Your task to perform on an android device: see sites visited before in the chrome app Image 0: 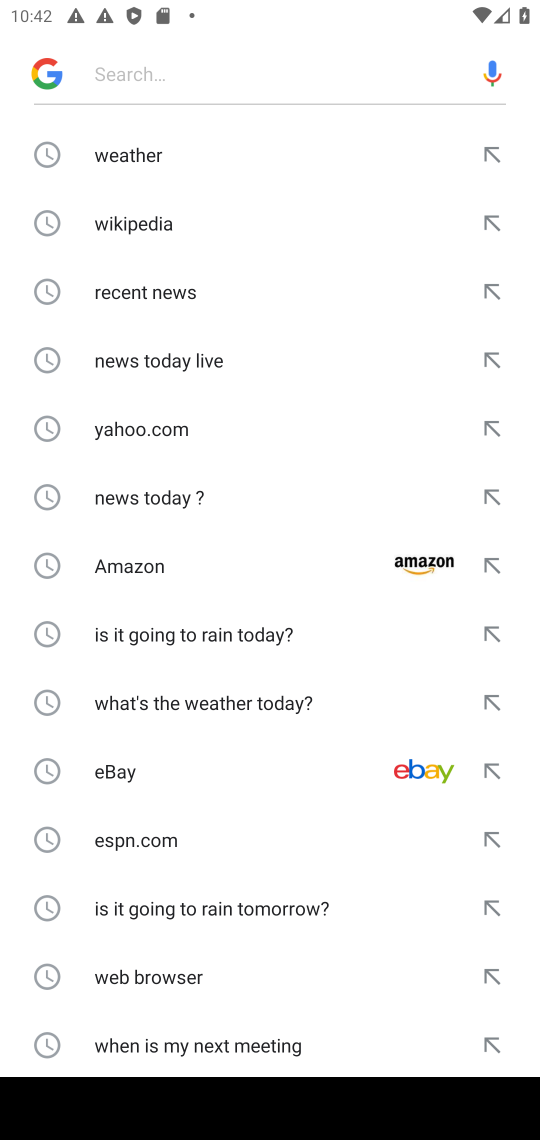
Step 0: press home button
Your task to perform on an android device: see sites visited before in the chrome app Image 1: 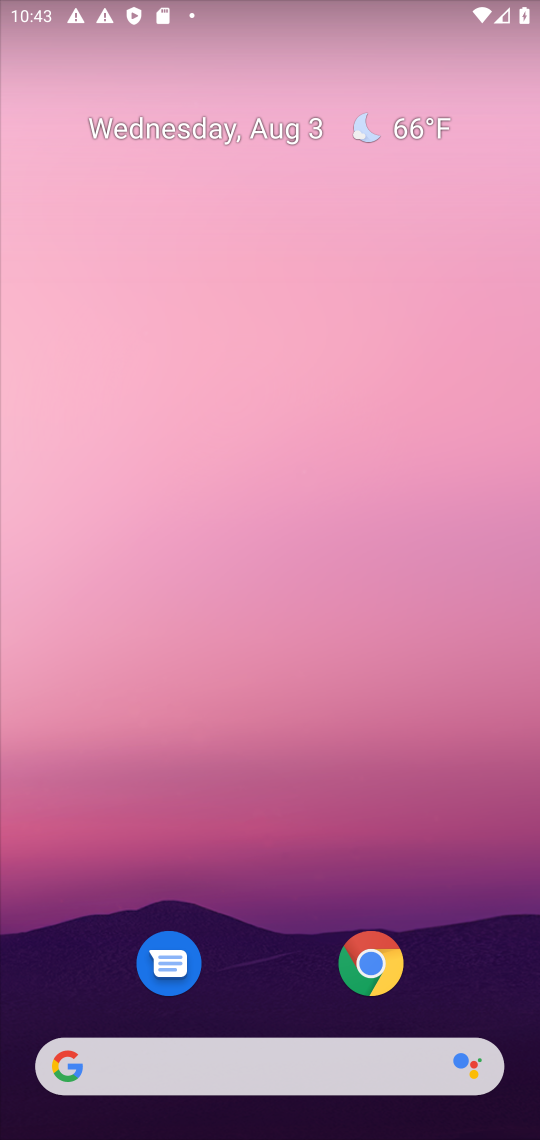
Step 1: click (368, 974)
Your task to perform on an android device: see sites visited before in the chrome app Image 2: 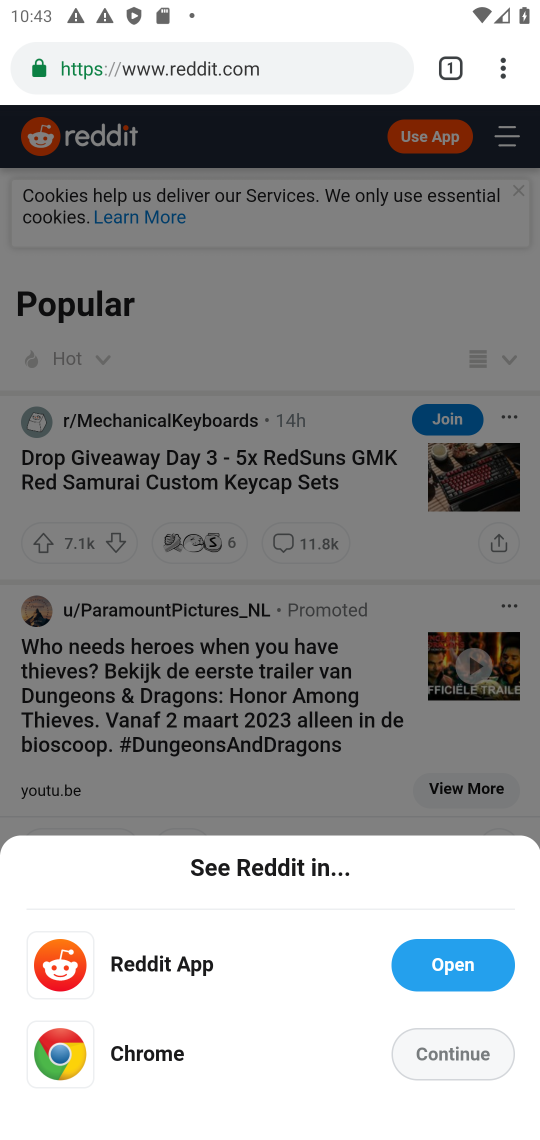
Step 2: click (424, 1040)
Your task to perform on an android device: see sites visited before in the chrome app Image 3: 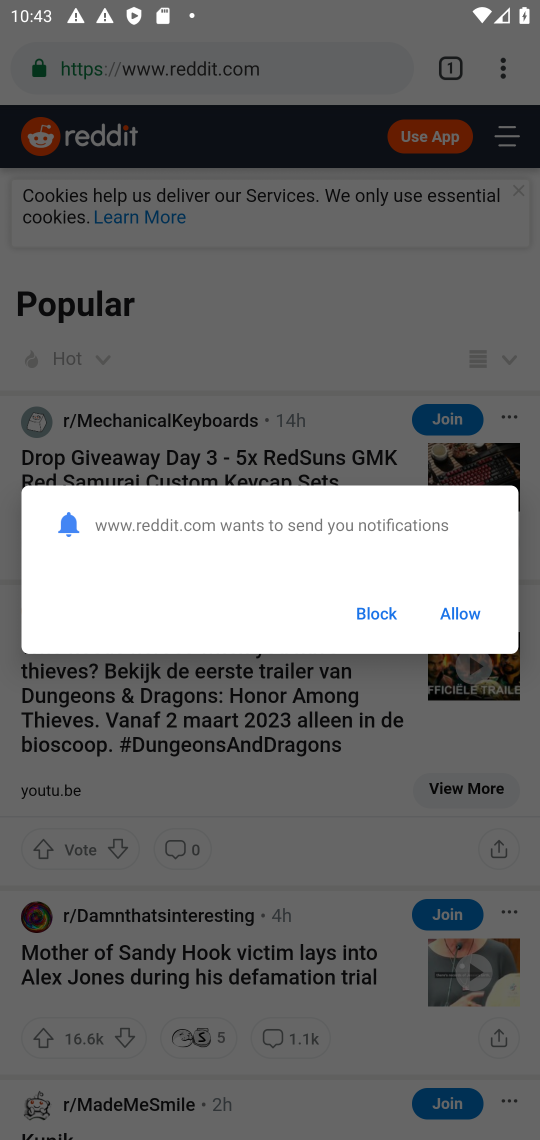
Step 3: click (453, 605)
Your task to perform on an android device: see sites visited before in the chrome app Image 4: 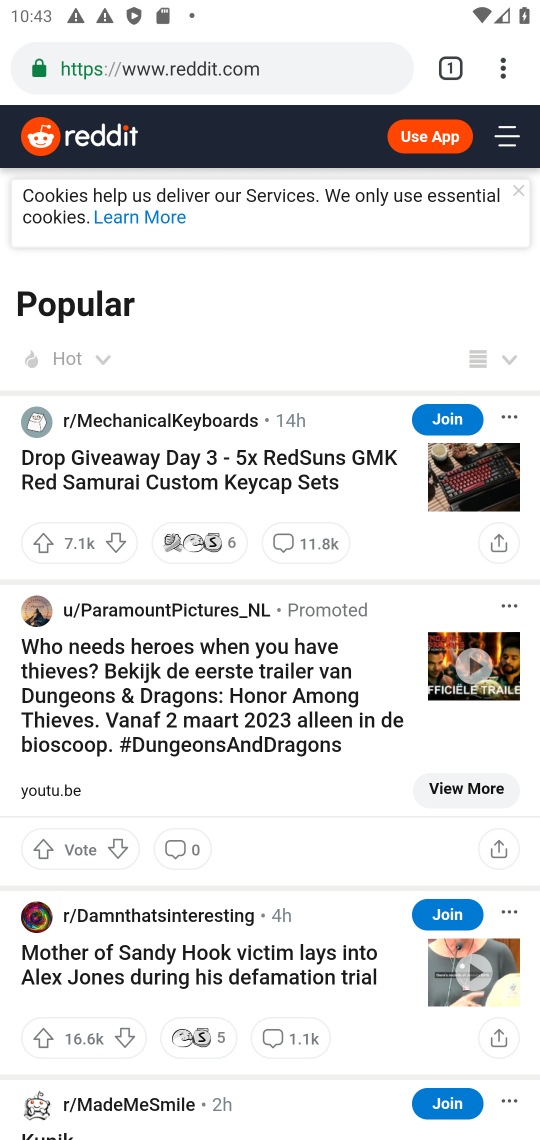
Step 4: click (508, 68)
Your task to perform on an android device: see sites visited before in the chrome app Image 5: 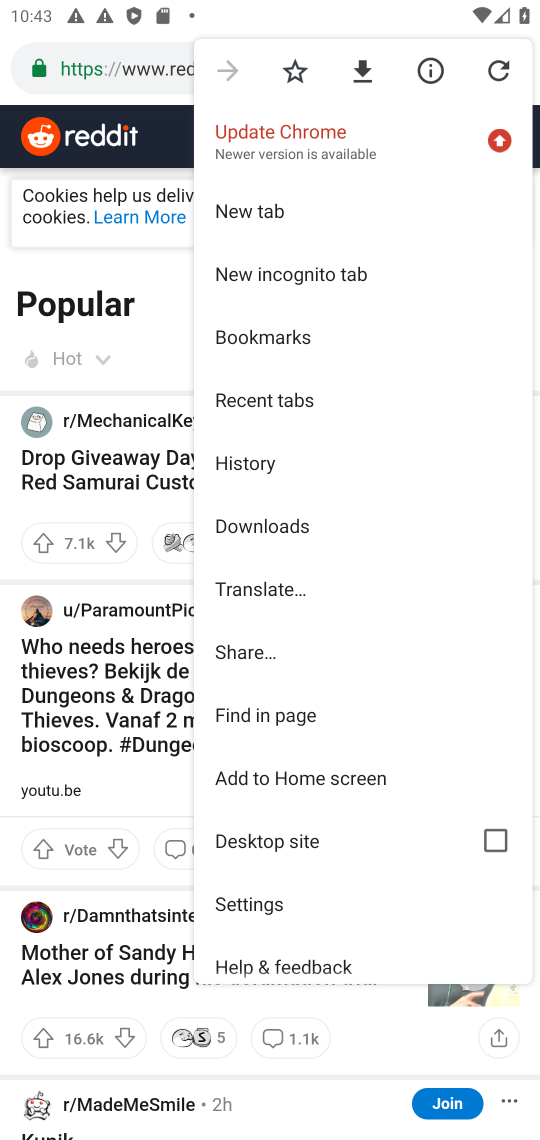
Step 5: click (265, 476)
Your task to perform on an android device: see sites visited before in the chrome app Image 6: 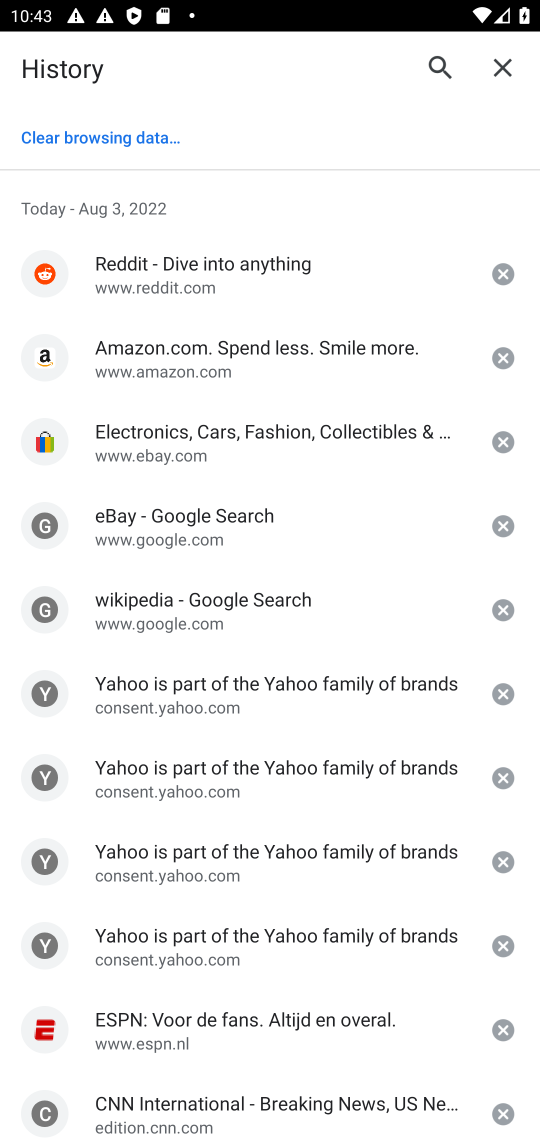
Step 6: task complete